Your task to perform on an android device: Open Wikipedia Image 0: 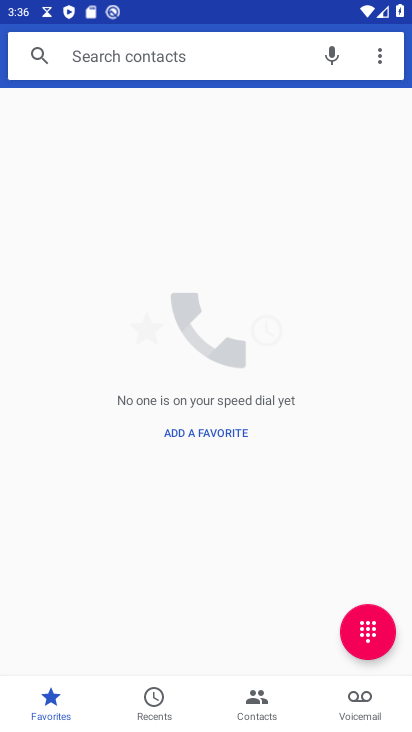
Step 0: press back button
Your task to perform on an android device: Open Wikipedia Image 1: 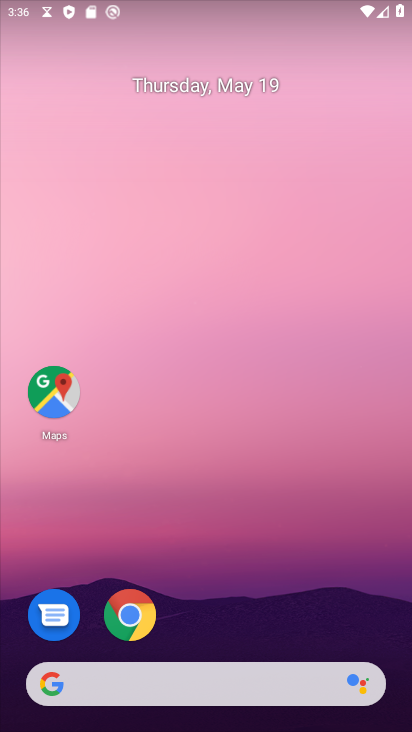
Step 1: drag from (296, 633) to (194, 265)
Your task to perform on an android device: Open Wikipedia Image 2: 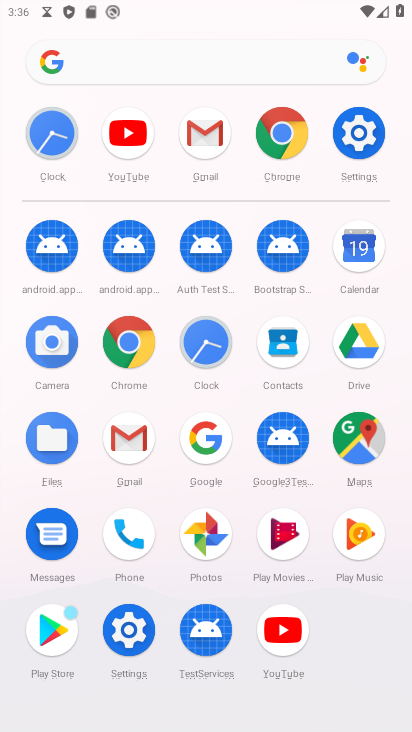
Step 2: click (288, 125)
Your task to perform on an android device: Open Wikipedia Image 3: 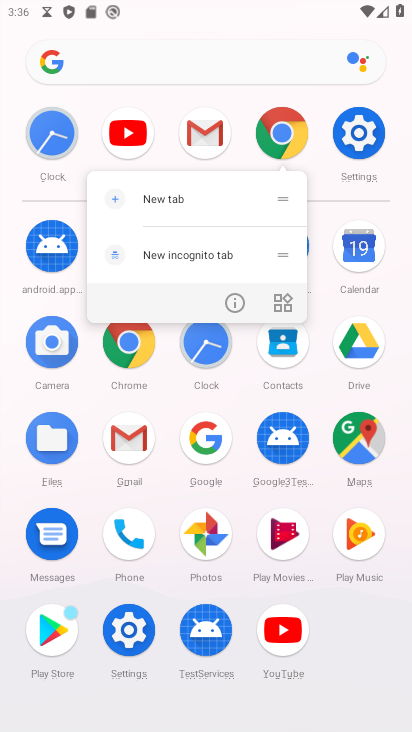
Step 3: click (277, 135)
Your task to perform on an android device: Open Wikipedia Image 4: 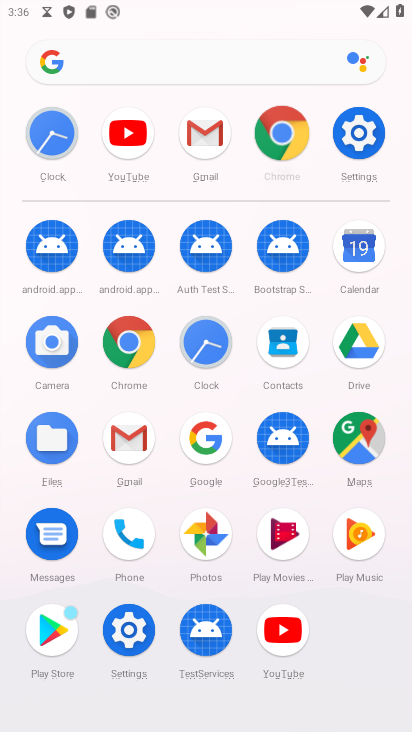
Step 4: click (278, 134)
Your task to perform on an android device: Open Wikipedia Image 5: 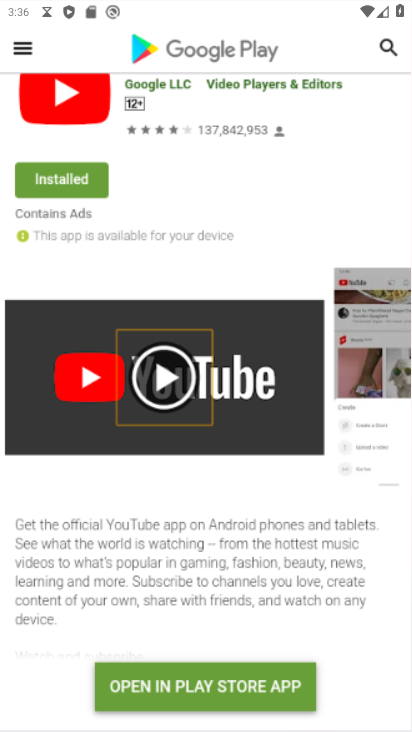
Step 5: click (278, 134)
Your task to perform on an android device: Open Wikipedia Image 6: 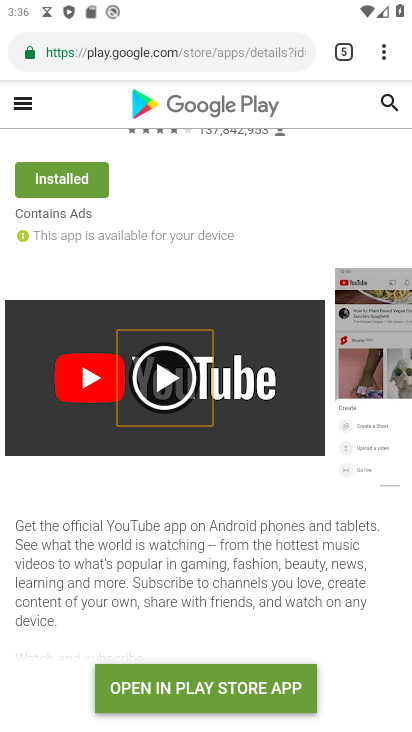
Step 6: drag from (374, 46) to (184, 98)
Your task to perform on an android device: Open Wikipedia Image 7: 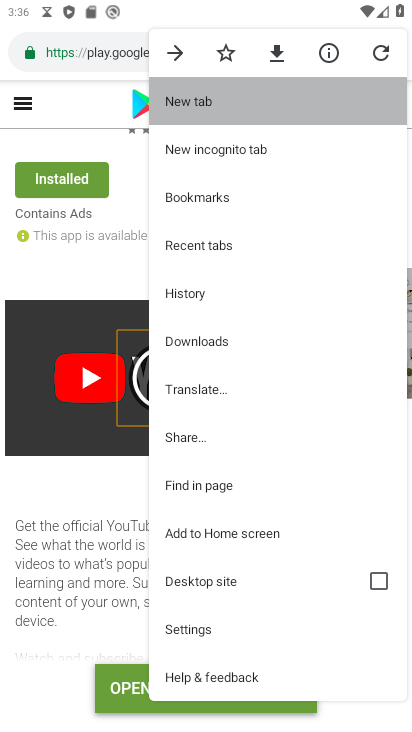
Step 7: click (185, 97)
Your task to perform on an android device: Open Wikipedia Image 8: 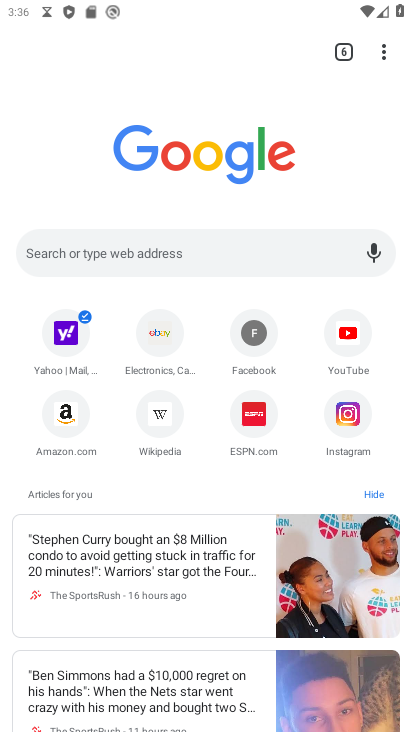
Step 8: click (161, 413)
Your task to perform on an android device: Open Wikipedia Image 9: 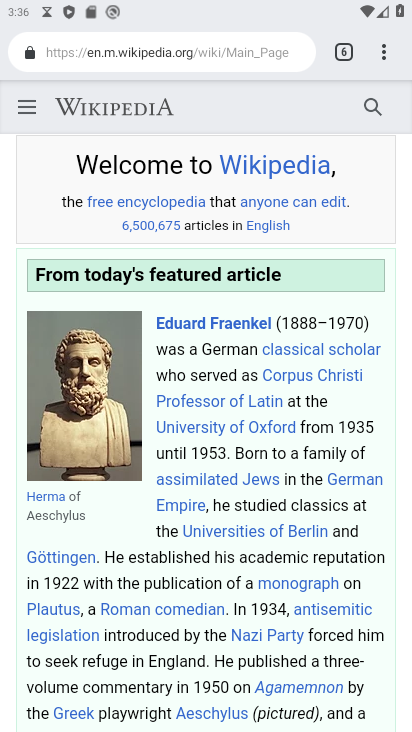
Step 9: task complete